Your task to perform on an android device: Open the calendar app, open the side menu, and click the "Day" option Image 0: 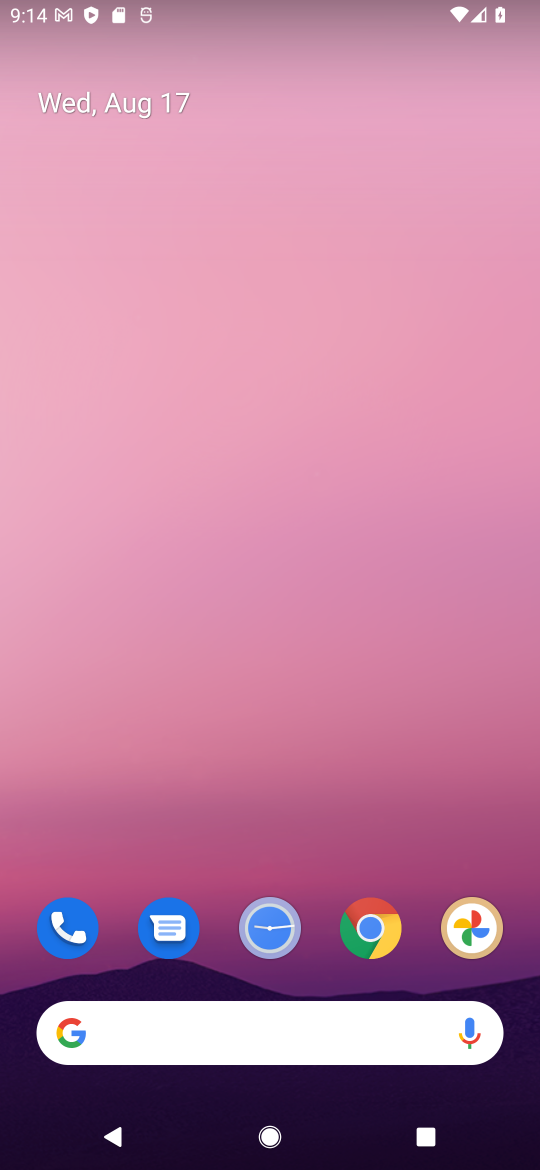
Step 0: drag from (417, 845) to (318, 225)
Your task to perform on an android device: Open the calendar app, open the side menu, and click the "Day" option Image 1: 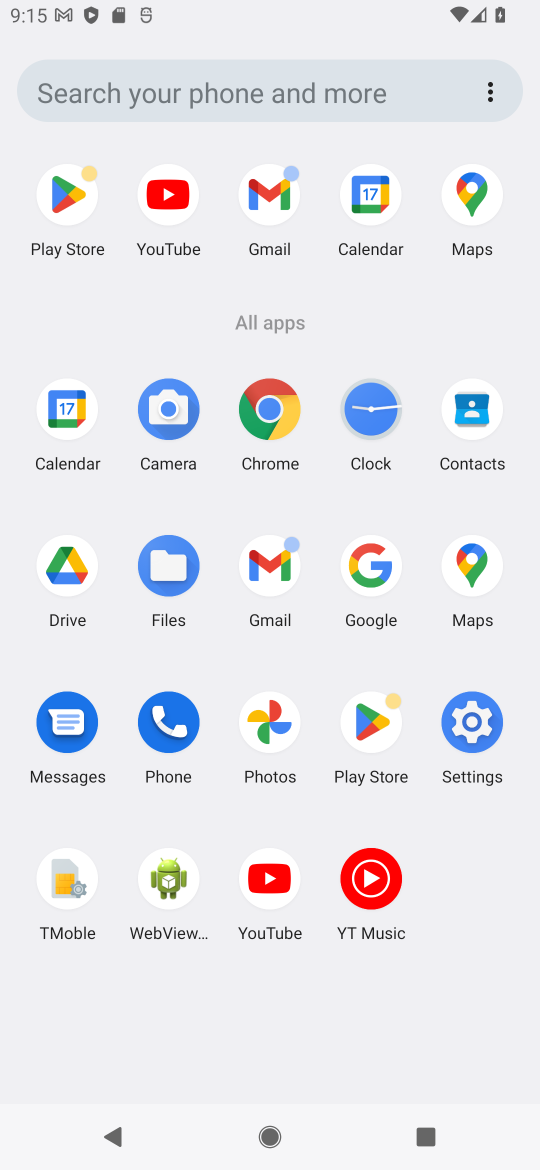
Step 1: click (69, 404)
Your task to perform on an android device: Open the calendar app, open the side menu, and click the "Day" option Image 2: 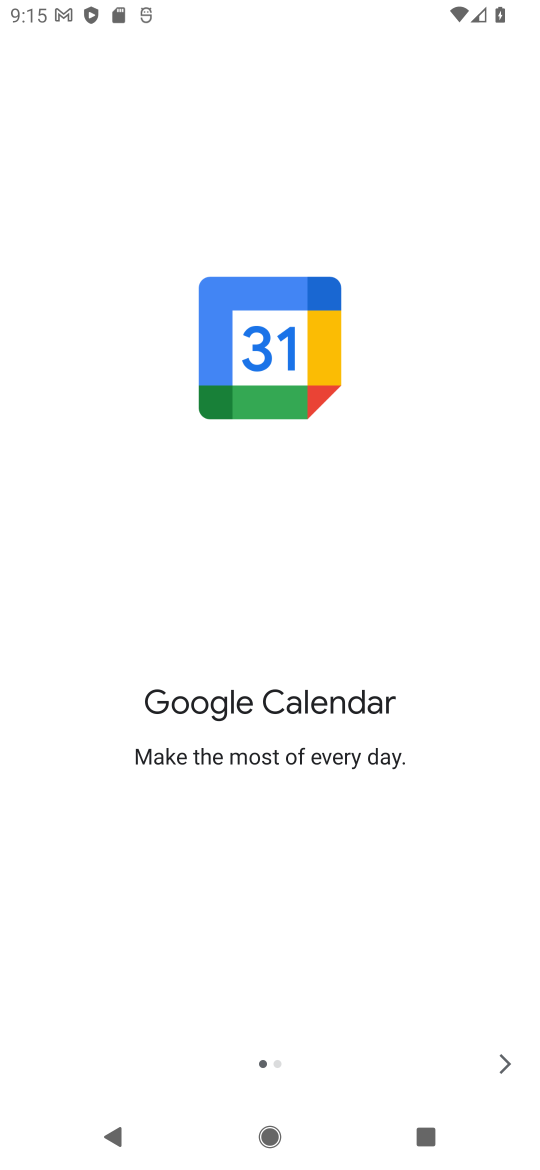
Step 2: click (498, 1070)
Your task to perform on an android device: Open the calendar app, open the side menu, and click the "Day" option Image 3: 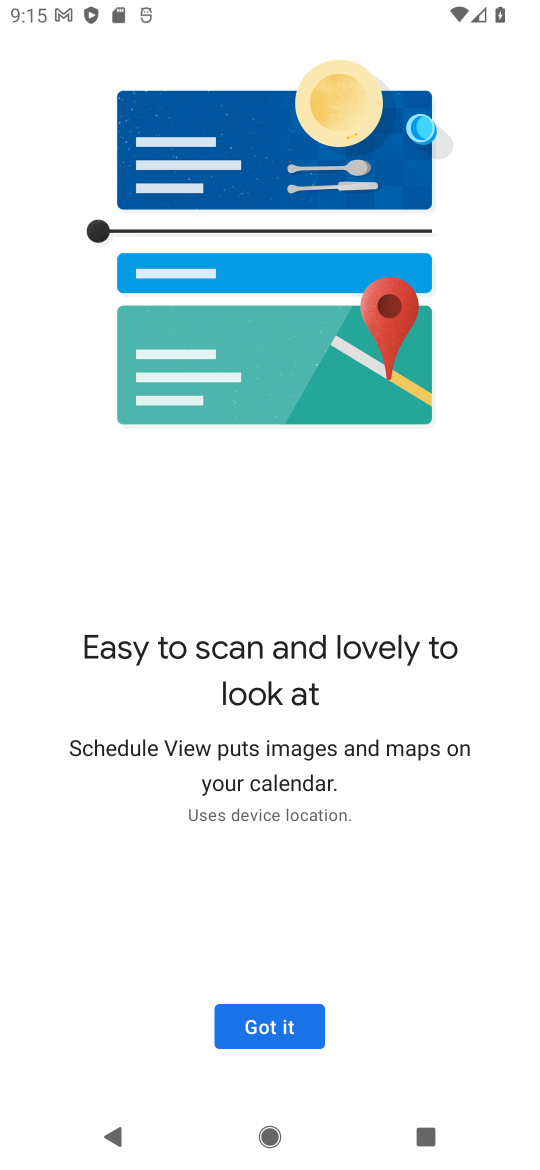
Step 3: click (269, 1036)
Your task to perform on an android device: Open the calendar app, open the side menu, and click the "Day" option Image 4: 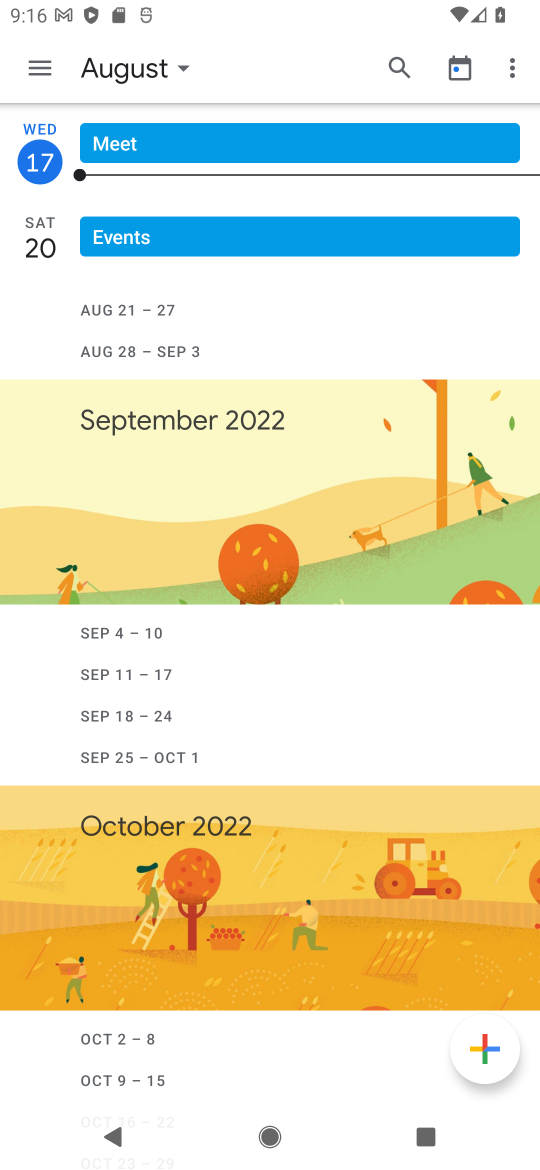
Step 4: click (44, 76)
Your task to perform on an android device: Open the calendar app, open the side menu, and click the "Day" option Image 5: 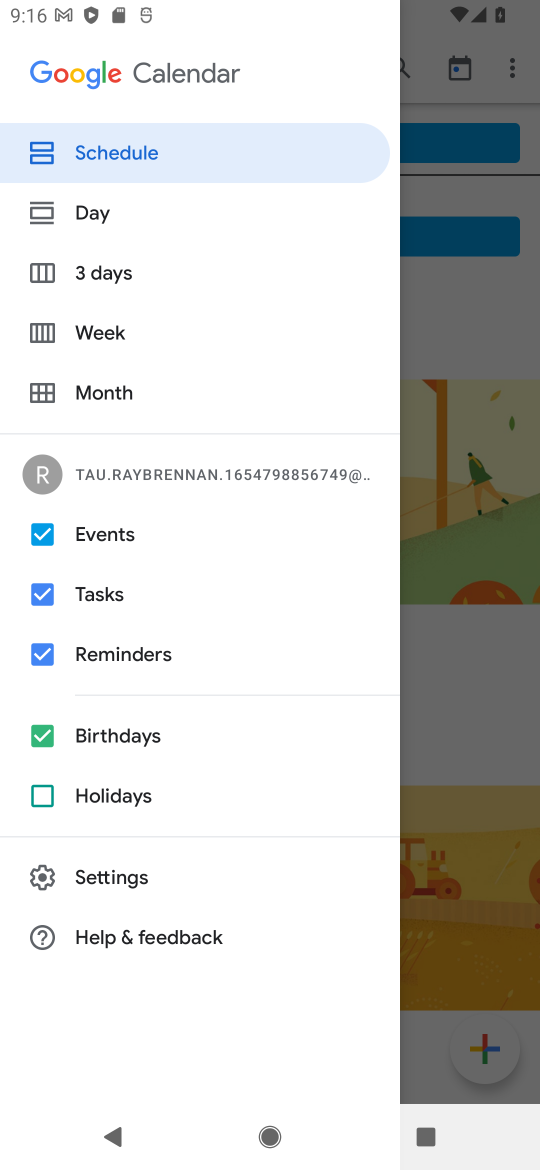
Step 5: click (88, 217)
Your task to perform on an android device: Open the calendar app, open the side menu, and click the "Day" option Image 6: 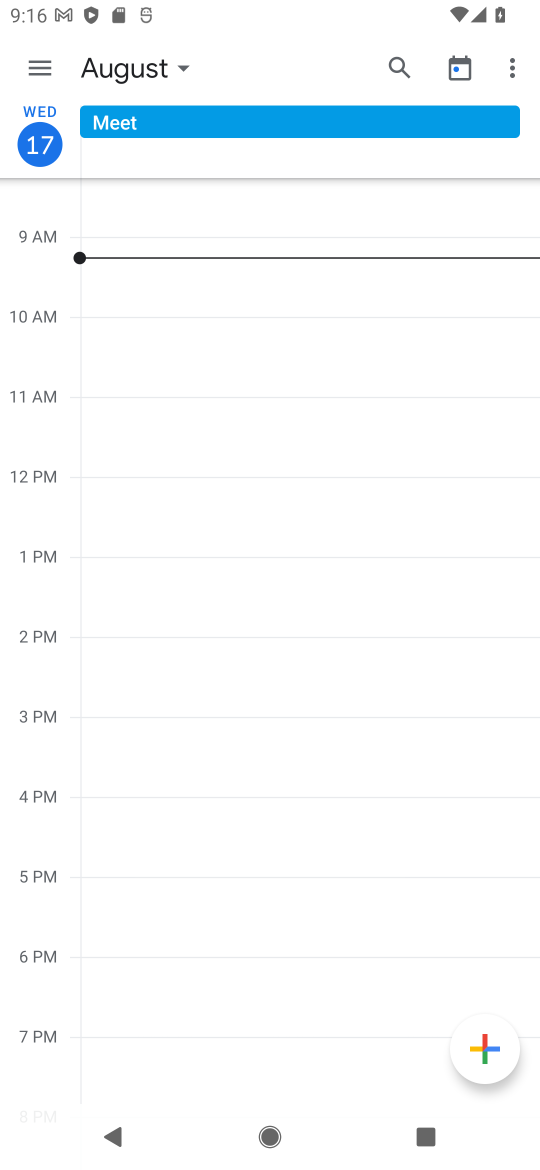
Step 6: task complete